Your task to perform on an android device: toggle notifications settings in the gmail app Image 0: 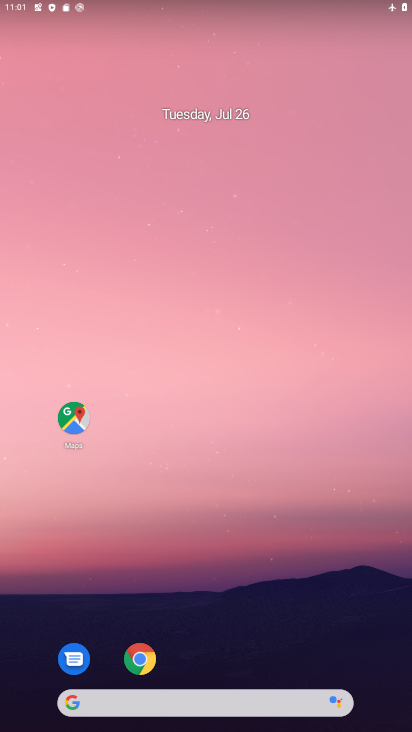
Step 0: drag from (186, 708) to (376, 93)
Your task to perform on an android device: toggle notifications settings in the gmail app Image 1: 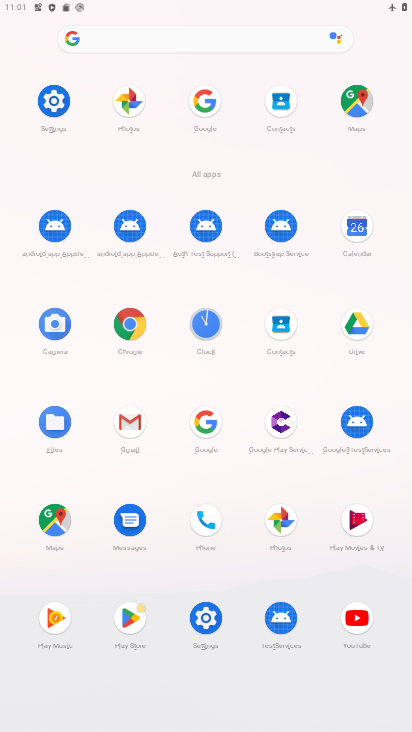
Step 1: click (130, 422)
Your task to perform on an android device: toggle notifications settings in the gmail app Image 2: 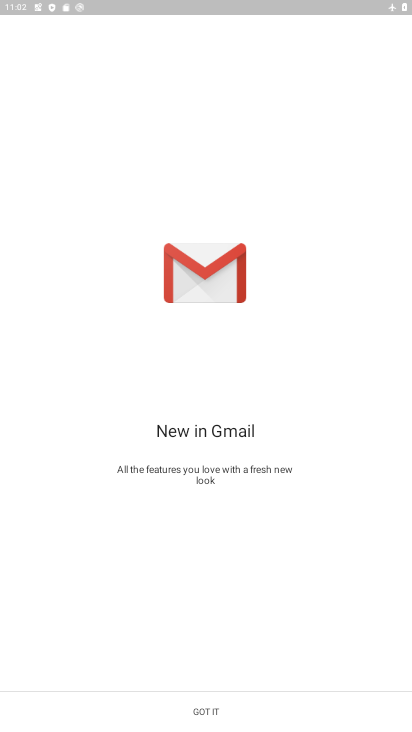
Step 2: click (207, 709)
Your task to perform on an android device: toggle notifications settings in the gmail app Image 3: 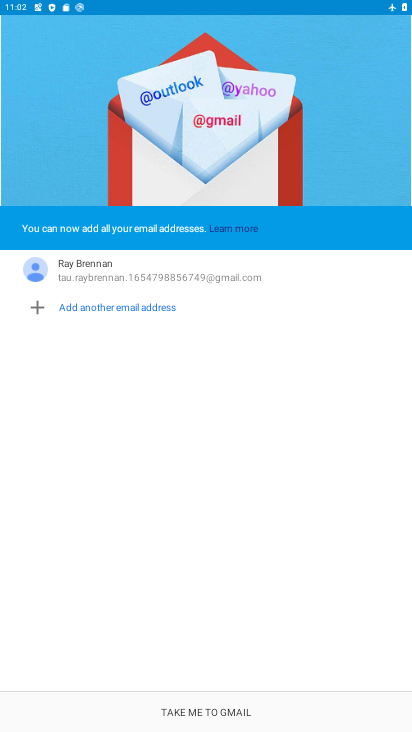
Step 3: click (207, 709)
Your task to perform on an android device: toggle notifications settings in the gmail app Image 4: 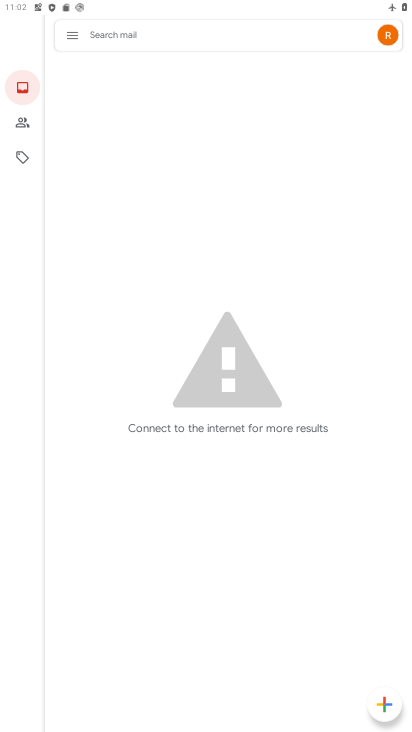
Step 4: click (73, 34)
Your task to perform on an android device: toggle notifications settings in the gmail app Image 5: 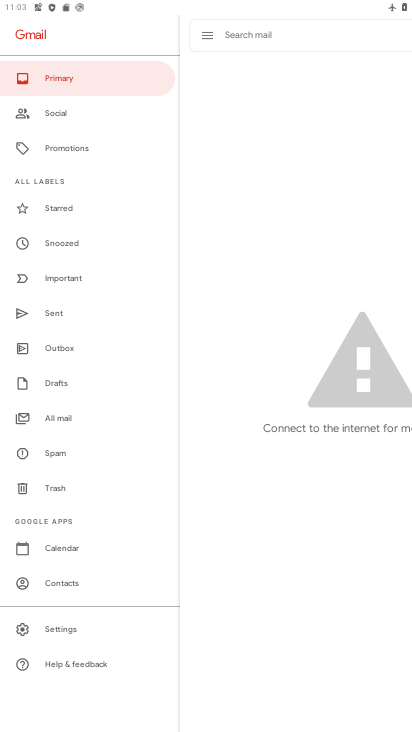
Step 5: click (55, 629)
Your task to perform on an android device: toggle notifications settings in the gmail app Image 6: 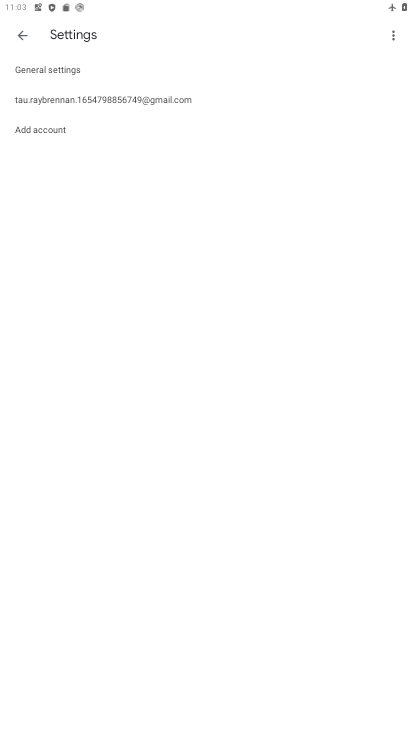
Step 6: click (175, 101)
Your task to perform on an android device: toggle notifications settings in the gmail app Image 7: 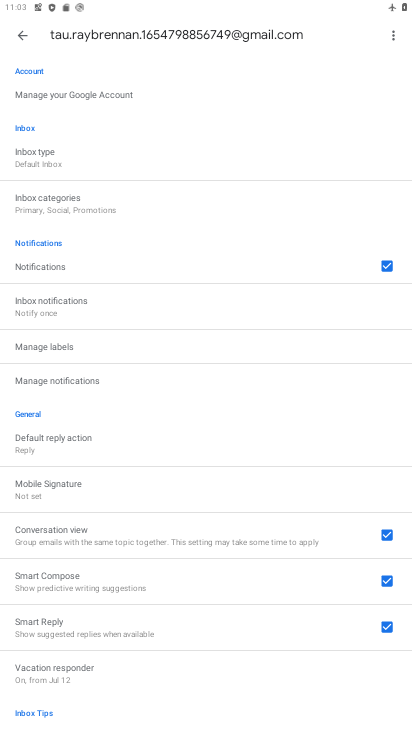
Step 7: click (71, 382)
Your task to perform on an android device: toggle notifications settings in the gmail app Image 8: 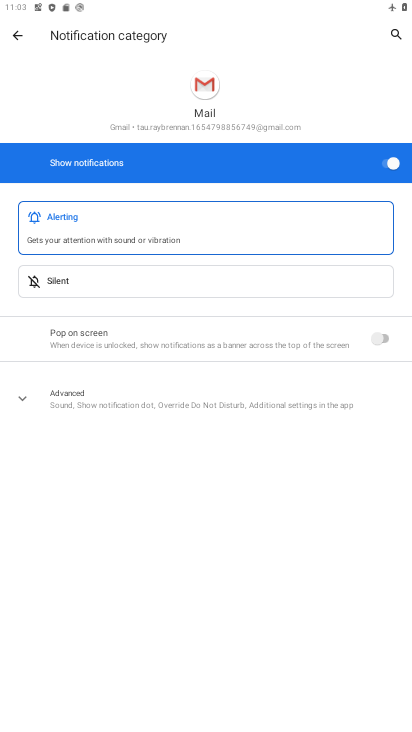
Step 8: click (389, 163)
Your task to perform on an android device: toggle notifications settings in the gmail app Image 9: 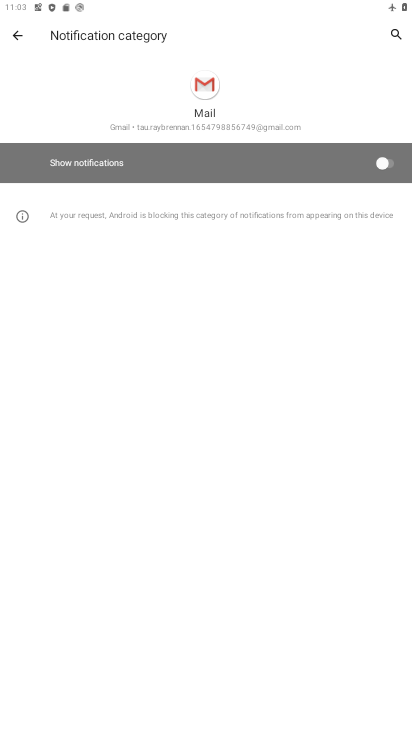
Step 9: task complete